Your task to perform on an android device: see sites visited before in the chrome app Image 0: 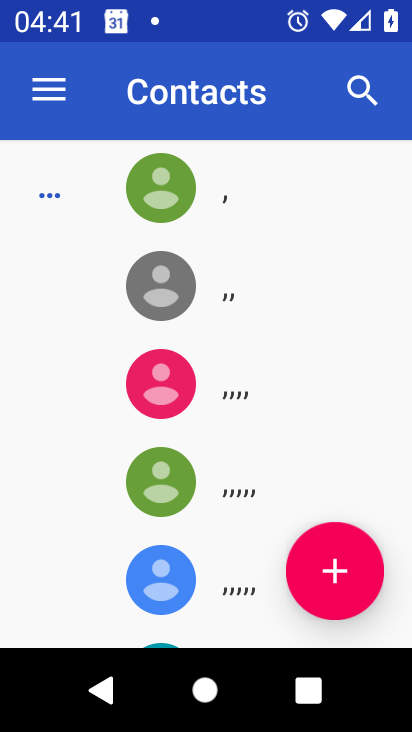
Step 0: press home button
Your task to perform on an android device: see sites visited before in the chrome app Image 1: 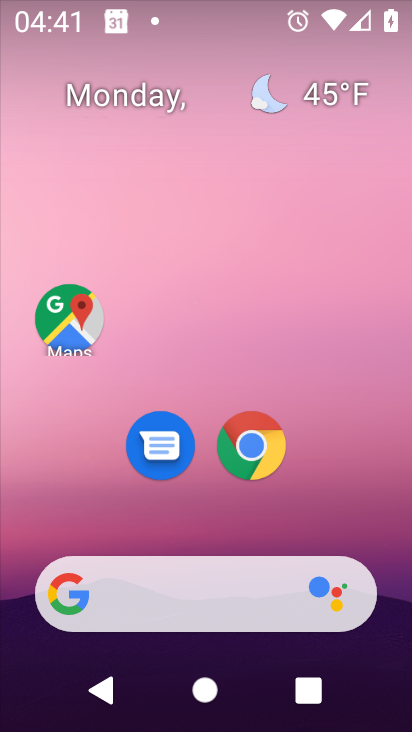
Step 1: click (250, 446)
Your task to perform on an android device: see sites visited before in the chrome app Image 2: 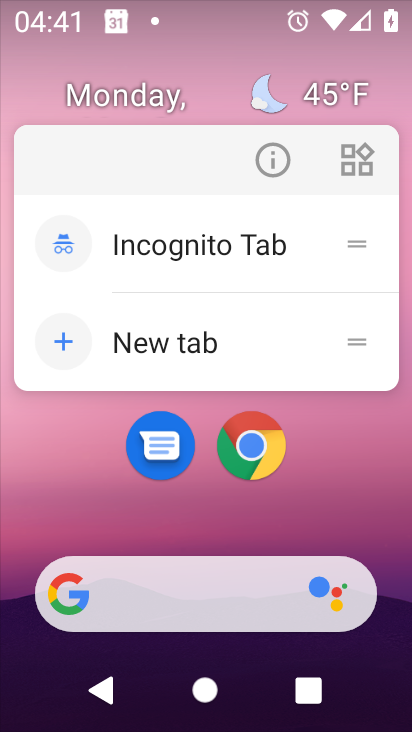
Step 2: click (251, 446)
Your task to perform on an android device: see sites visited before in the chrome app Image 3: 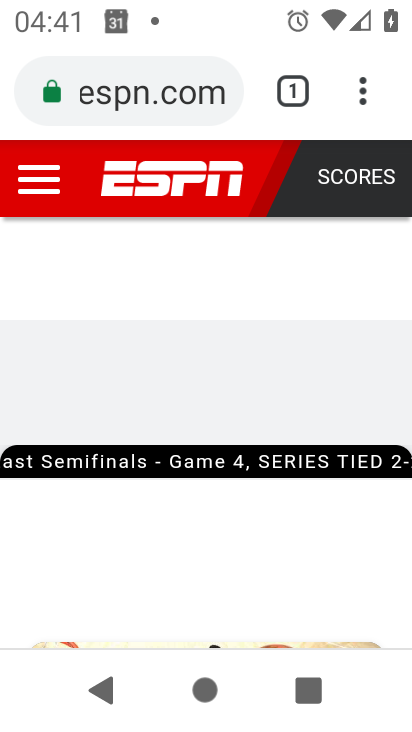
Step 3: click (361, 89)
Your task to perform on an android device: see sites visited before in the chrome app Image 4: 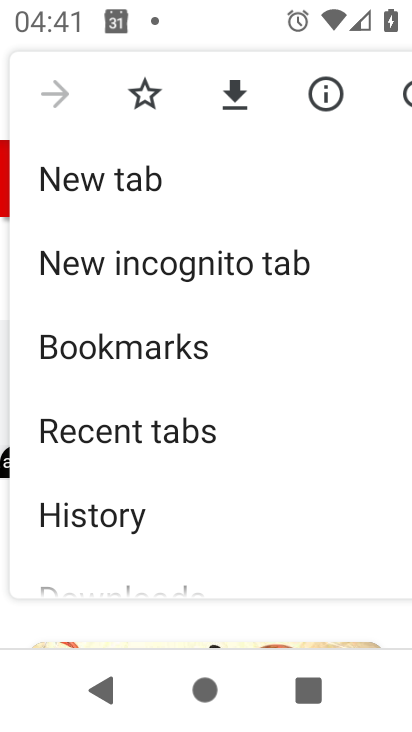
Step 4: click (144, 500)
Your task to perform on an android device: see sites visited before in the chrome app Image 5: 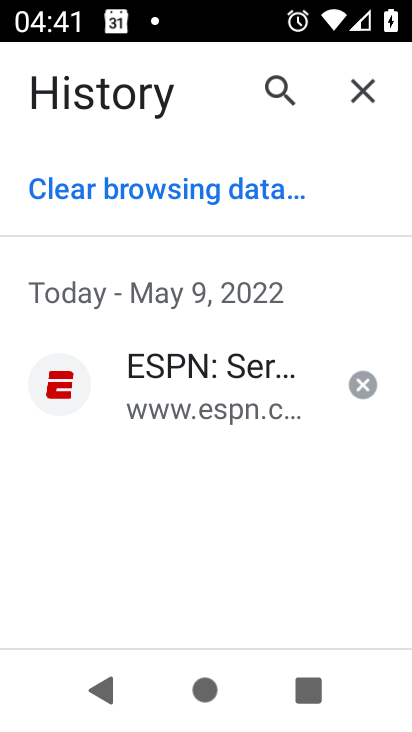
Step 5: task complete